Your task to perform on an android device: Open the calendar app, open the side menu, and click the "Day" option Image 0: 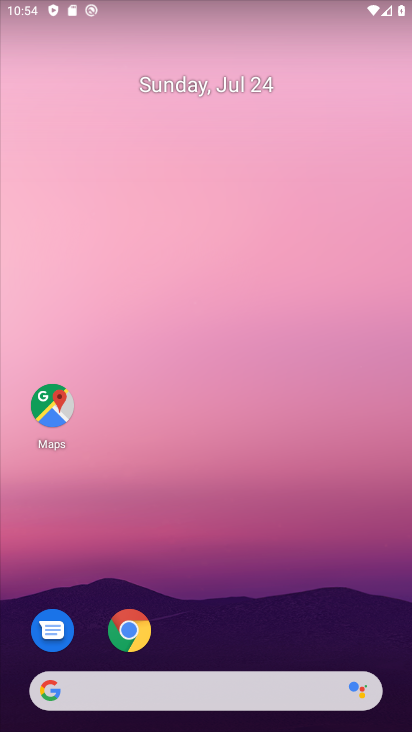
Step 0: drag from (262, 612) to (262, 21)
Your task to perform on an android device: Open the calendar app, open the side menu, and click the "Day" option Image 1: 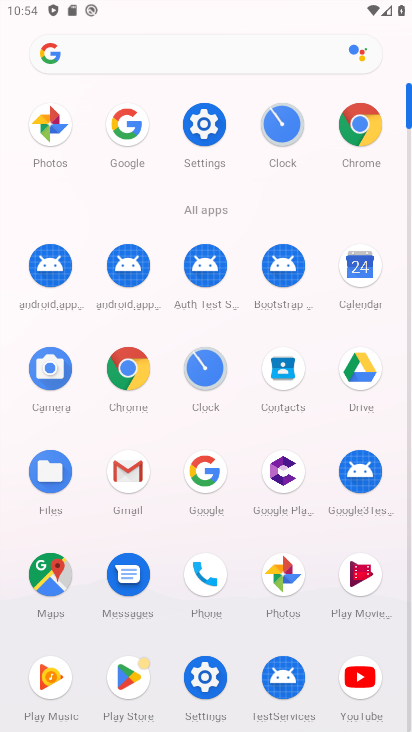
Step 1: click (364, 259)
Your task to perform on an android device: Open the calendar app, open the side menu, and click the "Day" option Image 2: 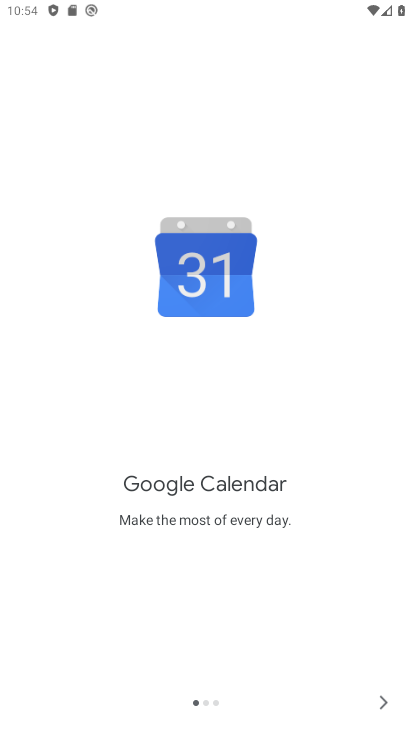
Step 2: click (384, 707)
Your task to perform on an android device: Open the calendar app, open the side menu, and click the "Day" option Image 3: 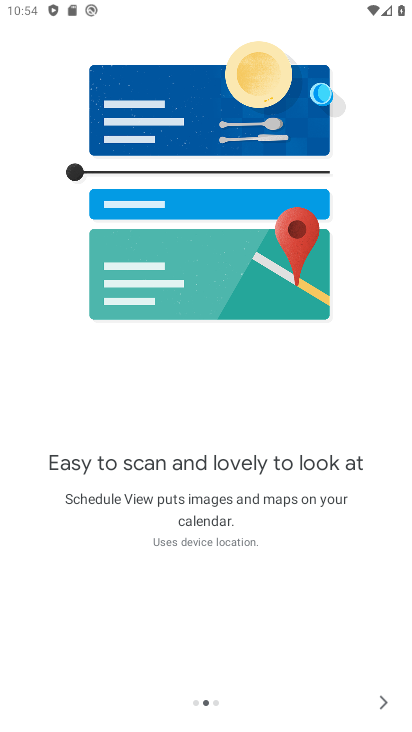
Step 3: click (384, 707)
Your task to perform on an android device: Open the calendar app, open the side menu, and click the "Day" option Image 4: 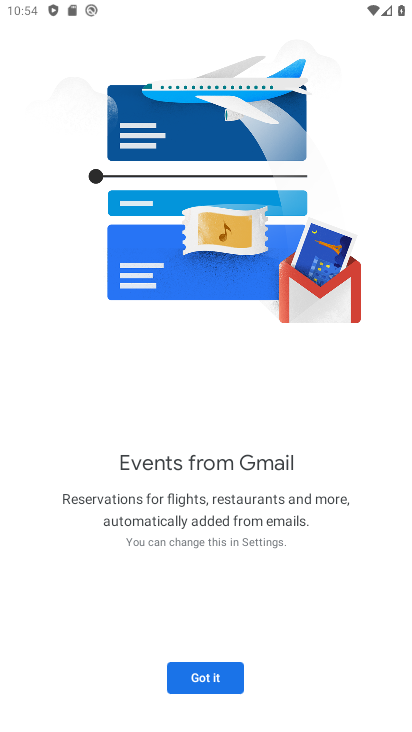
Step 4: click (230, 685)
Your task to perform on an android device: Open the calendar app, open the side menu, and click the "Day" option Image 5: 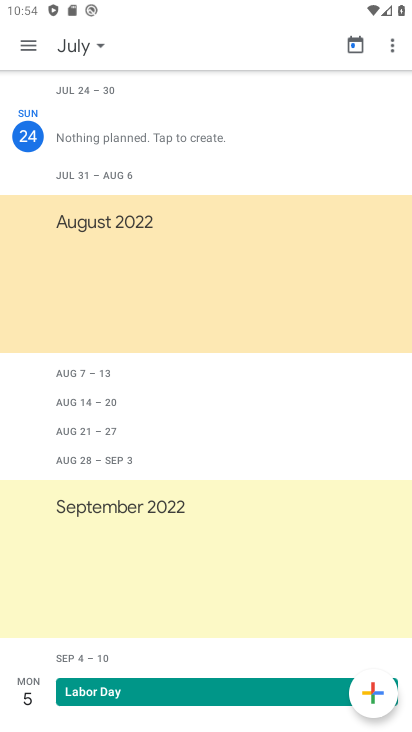
Step 5: click (24, 46)
Your task to perform on an android device: Open the calendar app, open the side menu, and click the "Day" option Image 6: 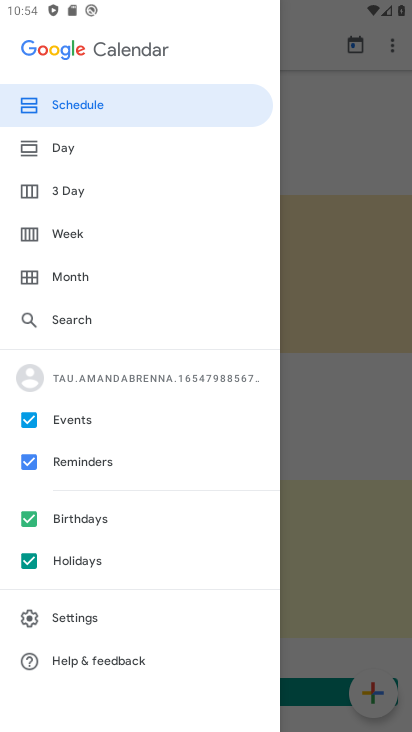
Step 6: click (51, 156)
Your task to perform on an android device: Open the calendar app, open the side menu, and click the "Day" option Image 7: 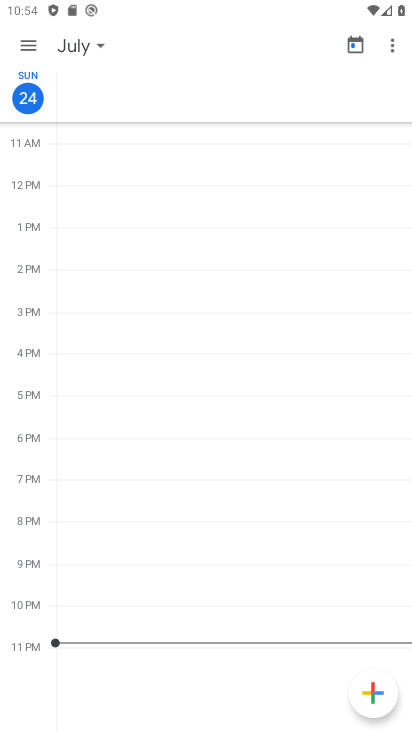
Step 7: task complete